Your task to perform on an android device: Turn on the flashlight Image 0: 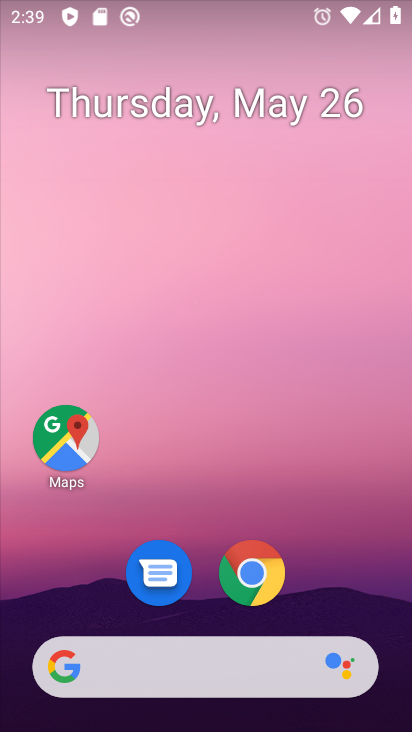
Step 0: drag from (330, 599) to (241, 194)
Your task to perform on an android device: Turn on the flashlight Image 1: 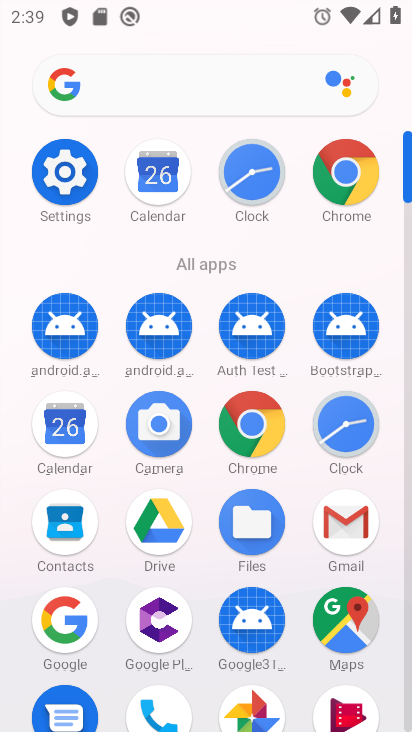
Step 1: click (65, 170)
Your task to perform on an android device: Turn on the flashlight Image 2: 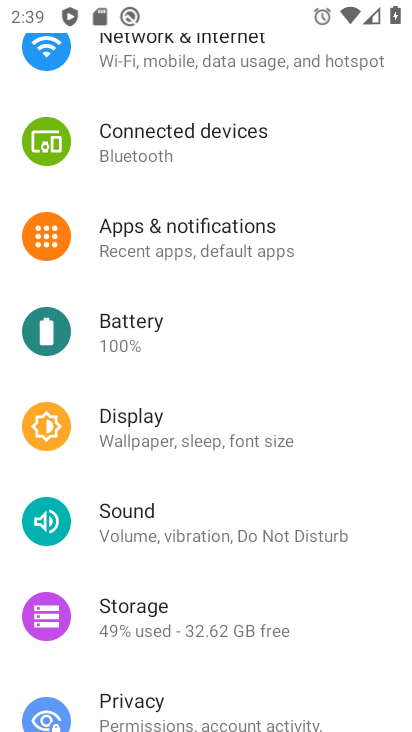
Step 2: drag from (238, 190) to (241, 296)
Your task to perform on an android device: Turn on the flashlight Image 3: 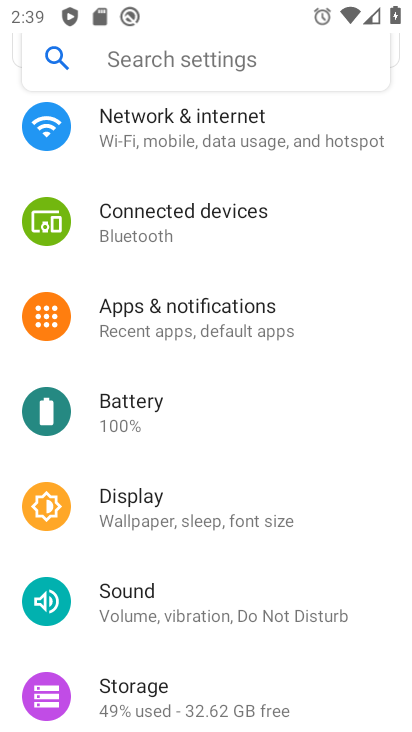
Step 3: drag from (186, 459) to (259, 355)
Your task to perform on an android device: Turn on the flashlight Image 4: 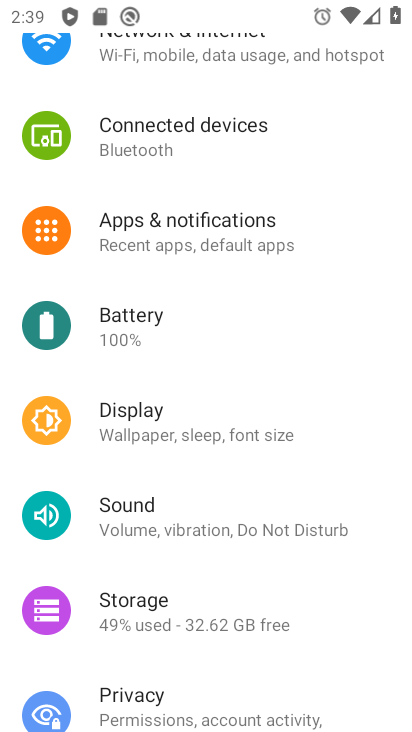
Step 4: drag from (243, 475) to (293, 388)
Your task to perform on an android device: Turn on the flashlight Image 5: 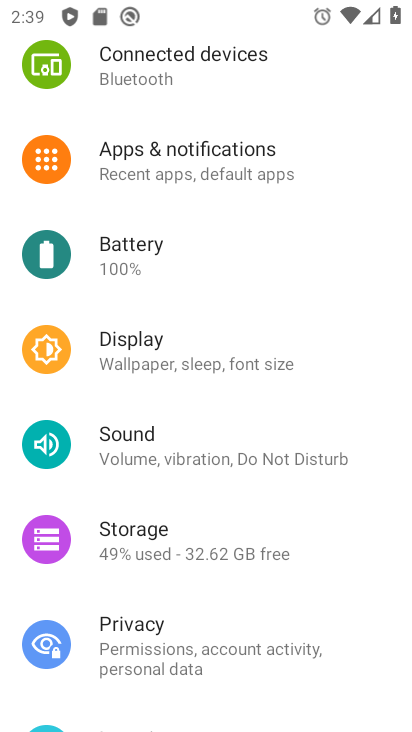
Step 5: drag from (243, 497) to (284, 418)
Your task to perform on an android device: Turn on the flashlight Image 6: 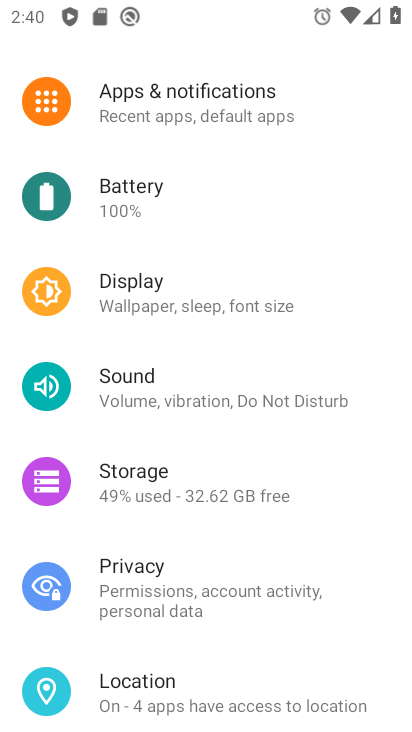
Step 6: drag from (227, 466) to (262, 361)
Your task to perform on an android device: Turn on the flashlight Image 7: 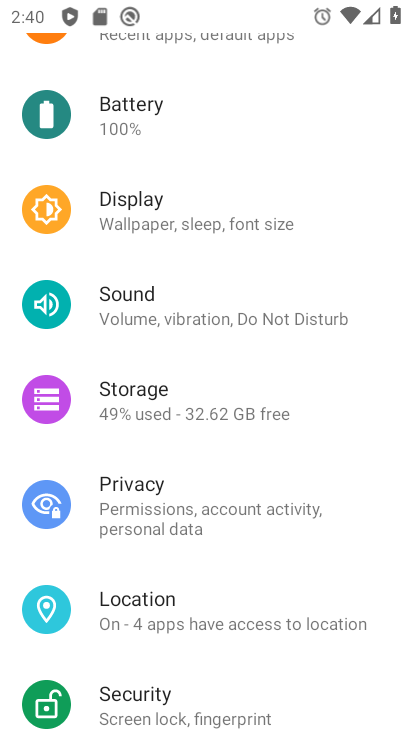
Step 7: drag from (204, 471) to (208, 401)
Your task to perform on an android device: Turn on the flashlight Image 8: 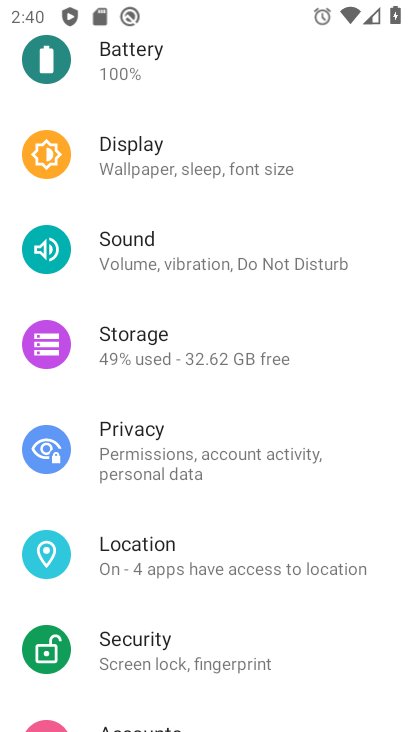
Step 8: drag from (221, 491) to (213, 391)
Your task to perform on an android device: Turn on the flashlight Image 9: 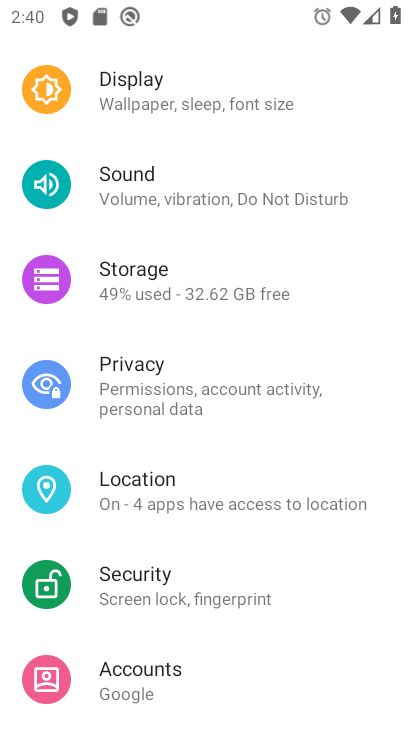
Step 9: drag from (165, 537) to (207, 466)
Your task to perform on an android device: Turn on the flashlight Image 10: 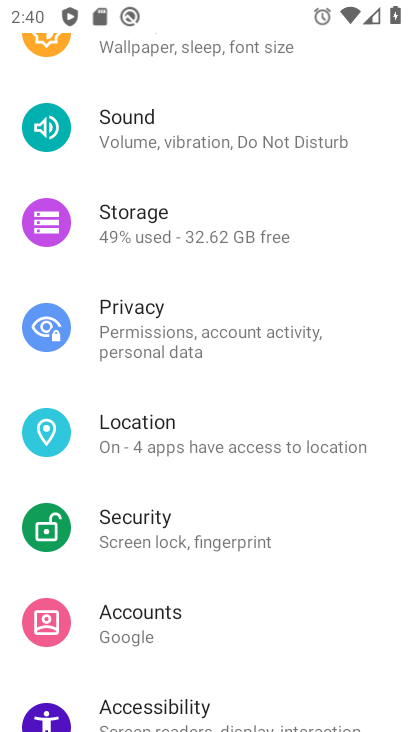
Step 10: drag from (189, 579) to (210, 500)
Your task to perform on an android device: Turn on the flashlight Image 11: 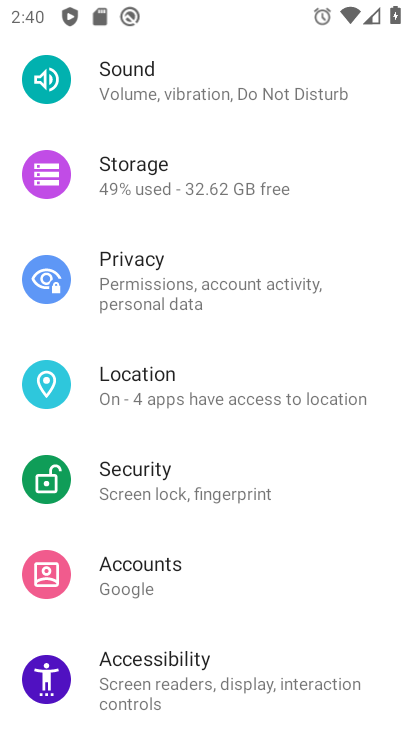
Step 11: drag from (182, 534) to (220, 465)
Your task to perform on an android device: Turn on the flashlight Image 12: 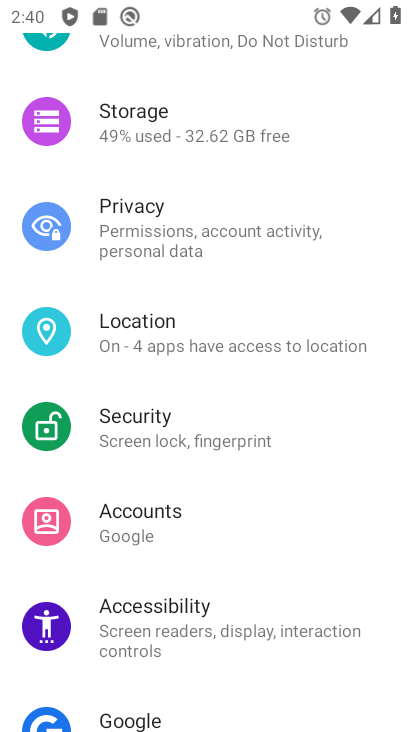
Step 12: drag from (148, 569) to (182, 496)
Your task to perform on an android device: Turn on the flashlight Image 13: 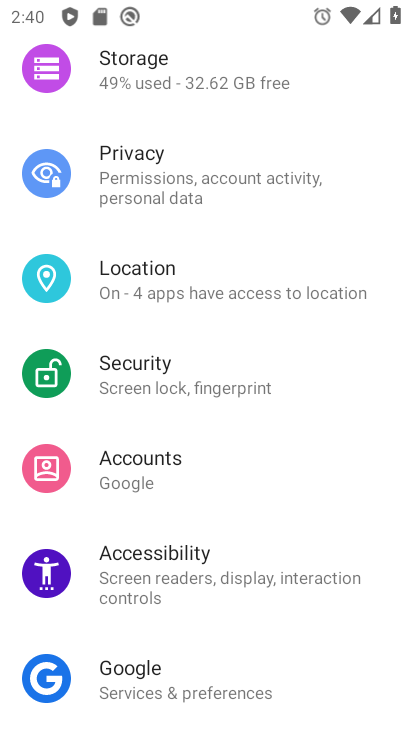
Step 13: click (160, 561)
Your task to perform on an android device: Turn on the flashlight Image 14: 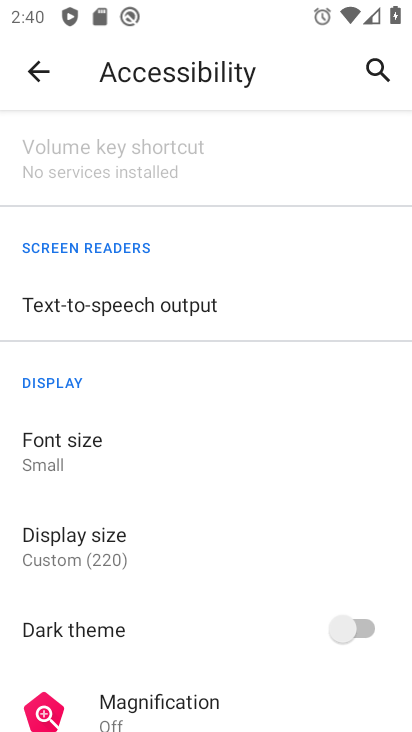
Step 14: task complete